Your task to perform on an android device: Go to wifi settings Image 0: 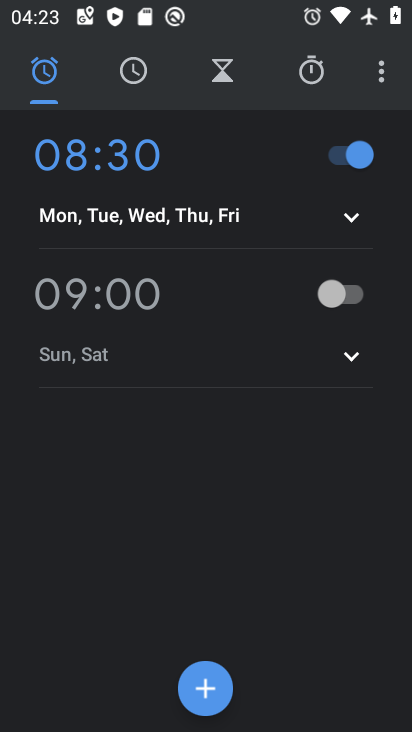
Step 0: press home button
Your task to perform on an android device: Go to wifi settings Image 1: 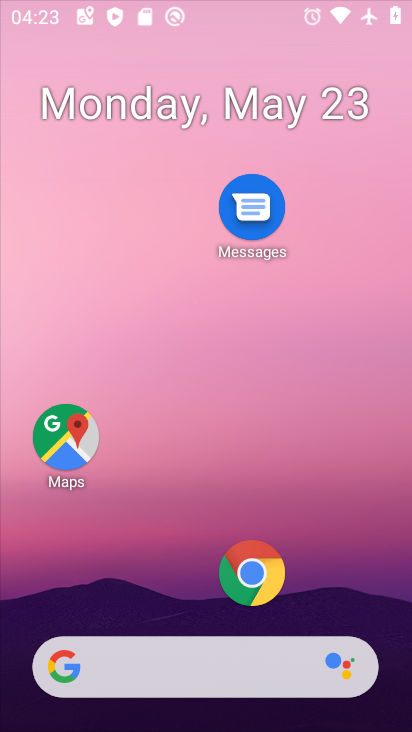
Step 1: drag from (297, 664) to (339, 13)
Your task to perform on an android device: Go to wifi settings Image 2: 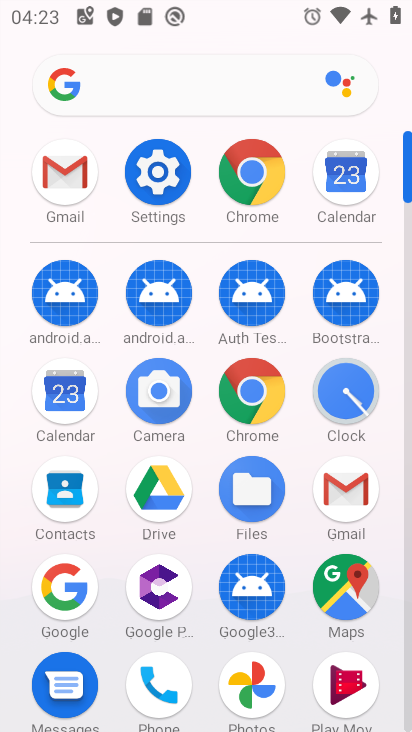
Step 2: click (168, 161)
Your task to perform on an android device: Go to wifi settings Image 3: 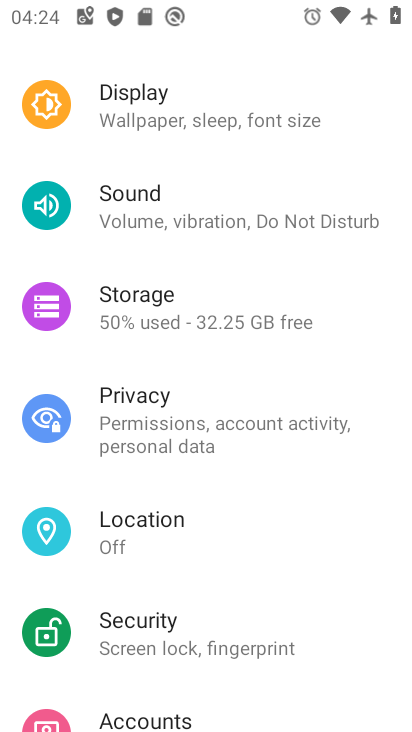
Step 3: drag from (228, 212) to (284, 702)
Your task to perform on an android device: Go to wifi settings Image 4: 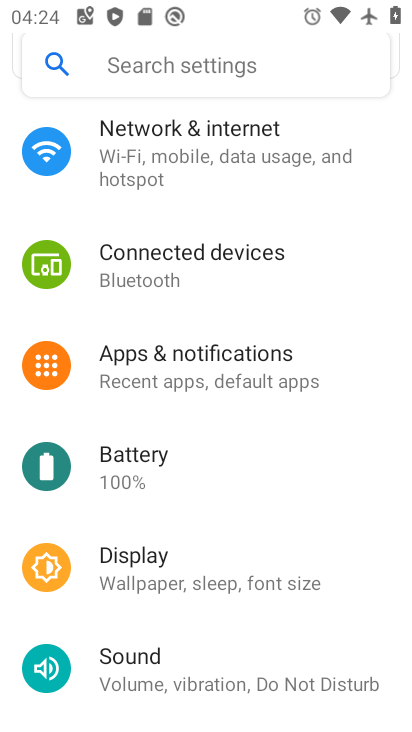
Step 4: drag from (231, 261) to (253, 595)
Your task to perform on an android device: Go to wifi settings Image 5: 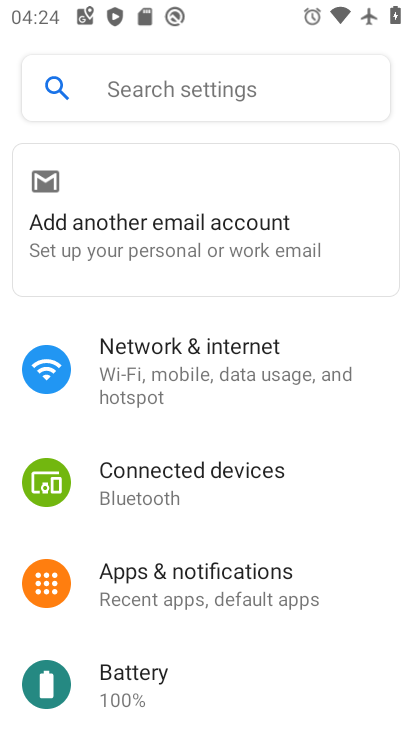
Step 5: click (236, 370)
Your task to perform on an android device: Go to wifi settings Image 6: 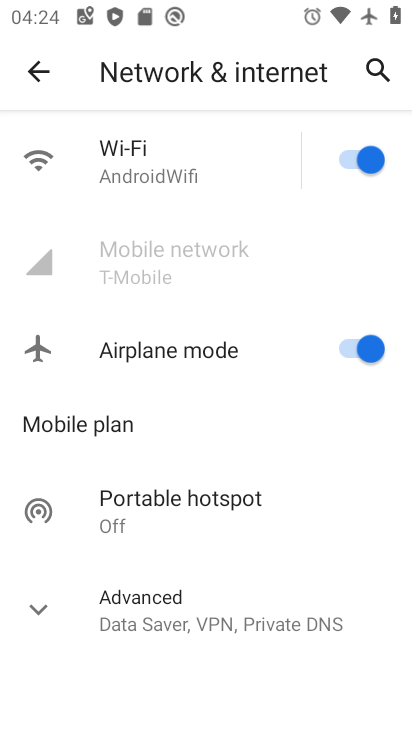
Step 6: click (195, 139)
Your task to perform on an android device: Go to wifi settings Image 7: 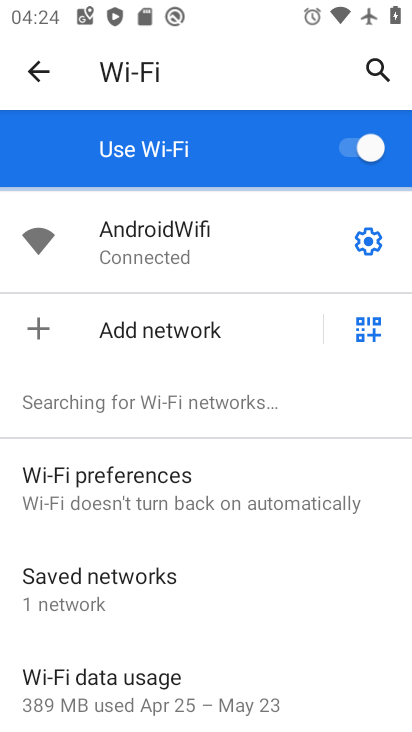
Step 7: press home button
Your task to perform on an android device: Go to wifi settings Image 8: 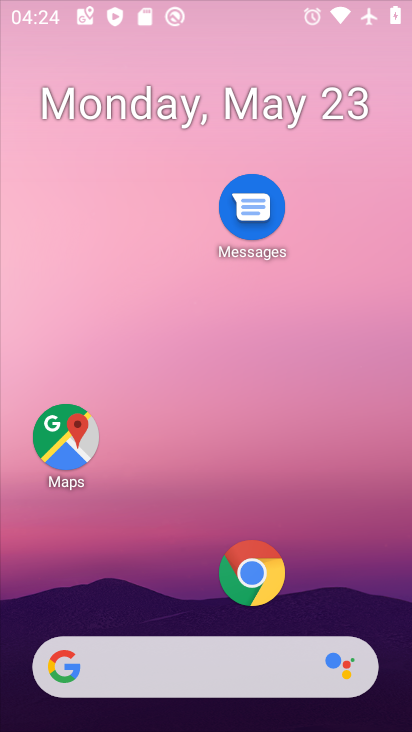
Step 8: drag from (356, 699) to (382, 14)
Your task to perform on an android device: Go to wifi settings Image 9: 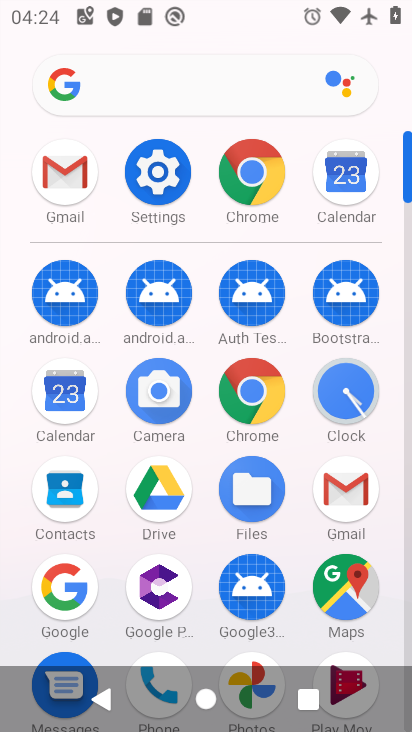
Step 9: click (158, 166)
Your task to perform on an android device: Go to wifi settings Image 10: 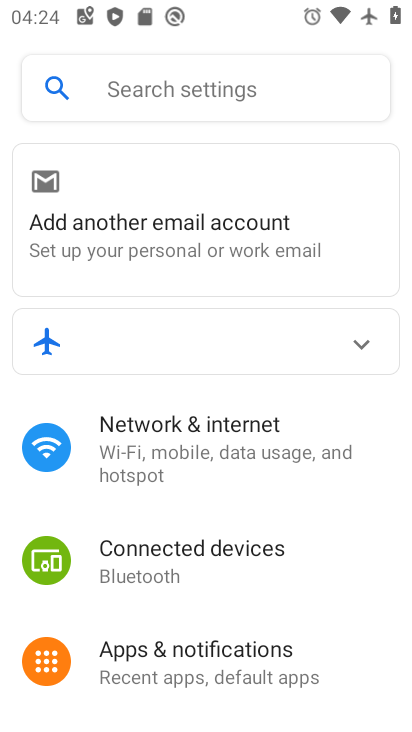
Step 10: click (211, 452)
Your task to perform on an android device: Go to wifi settings Image 11: 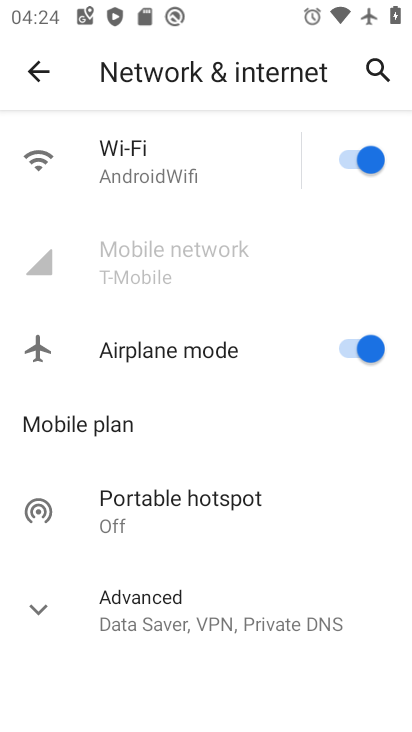
Step 11: click (190, 167)
Your task to perform on an android device: Go to wifi settings Image 12: 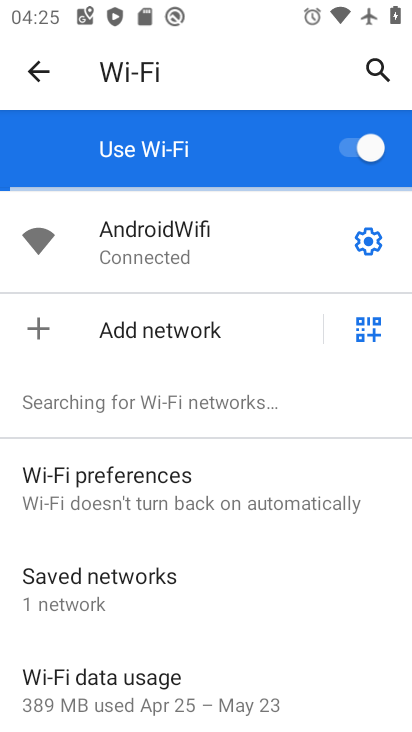
Step 12: task complete